Your task to perform on an android device: Find coffee shops on Maps Image 0: 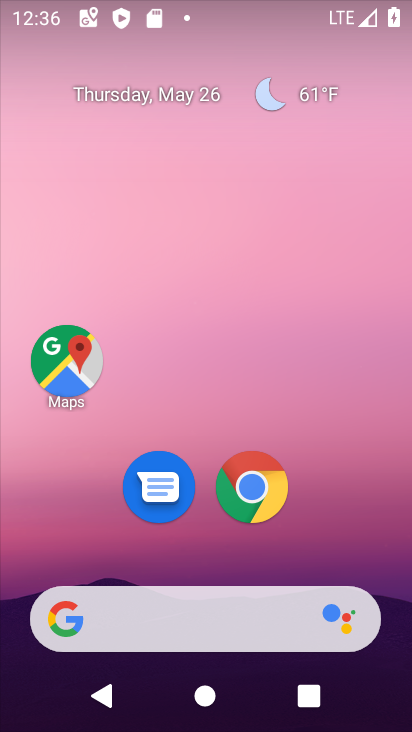
Step 0: drag from (251, 433) to (235, 314)
Your task to perform on an android device: Find coffee shops on Maps Image 1: 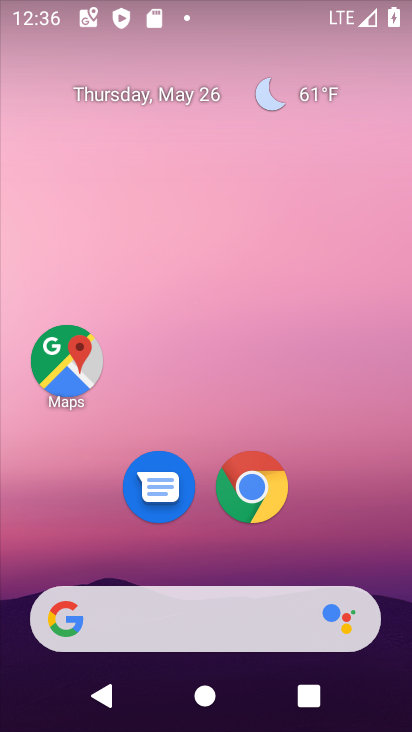
Step 1: drag from (262, 619) to (215, 136)
Your task to perform on an android device: Find coffee shops on Maps Image 2: 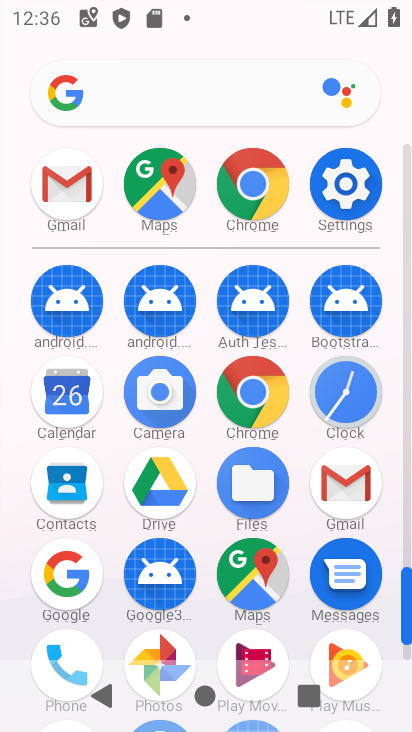
Step 2: click (235, 579)
Your task to perform on an android device: Find coffee shops on Maps Image 3: 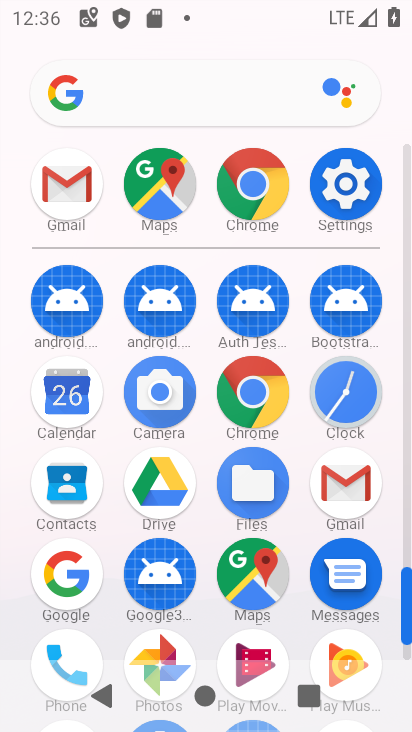
Step 3: click (235, 579)
Your task to perform on an android device: Find coffee shops on Maps Image 4: 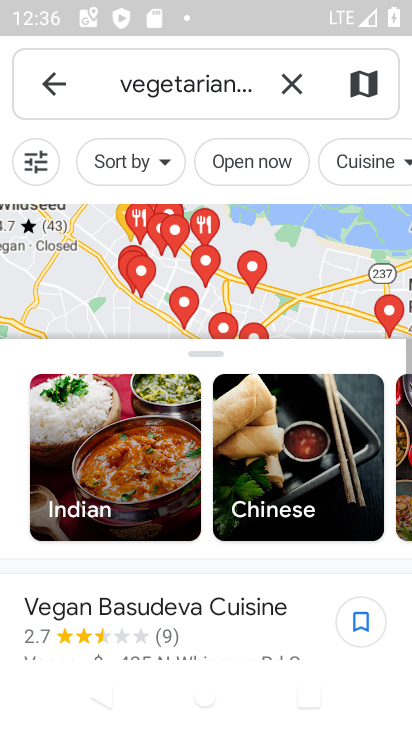
Step 4: click (291, 84)
Your task to perform on an android device: Find coffee shops on Maps Image 5: 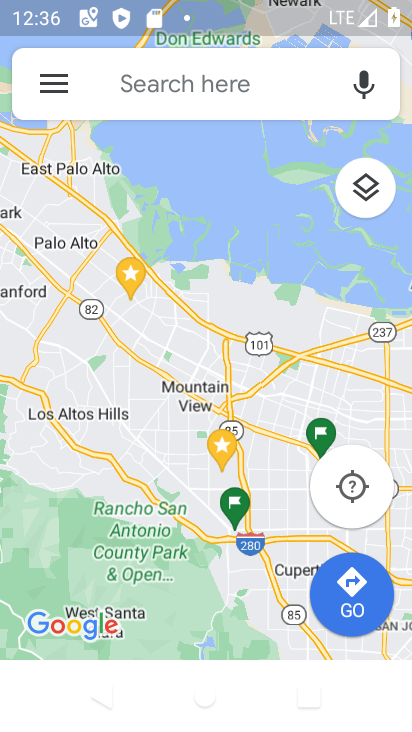
Step 5: click (123, 76)
Your task to perform on an android device: Find coffee shops on Maps Image 6: 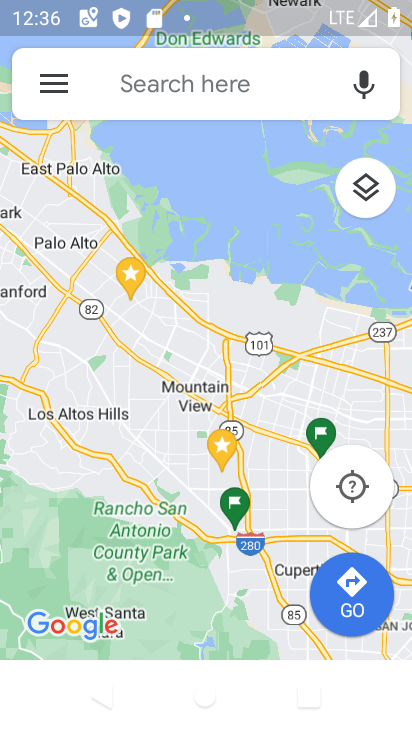
Step 6: click (123, 76)
Your task to perform on an android device: Find coffee shops on Maps Image 7: 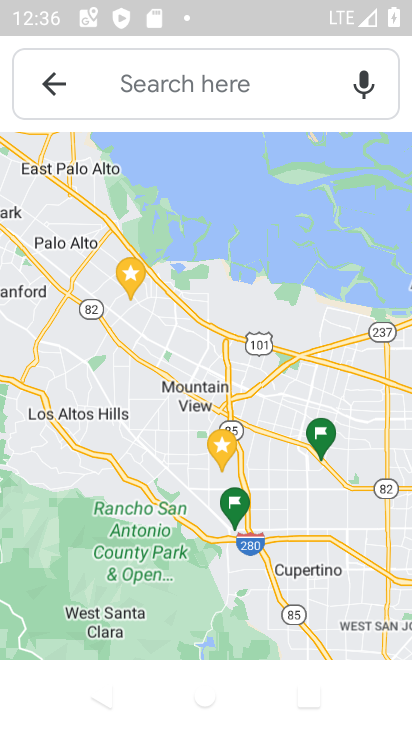
Step 7: click (123, 76)
Your task to perform on an android device: Find coffee shops on Maps Image 8: 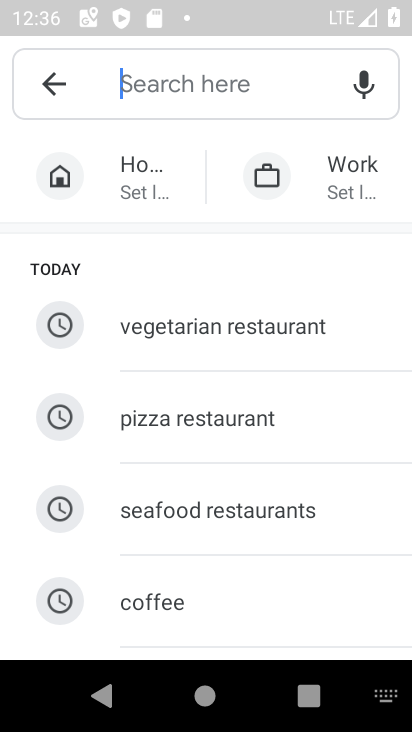
Step 8: click (159, 595)
Your task to perform on an android device: Find coffee shops on Maps Image 9: 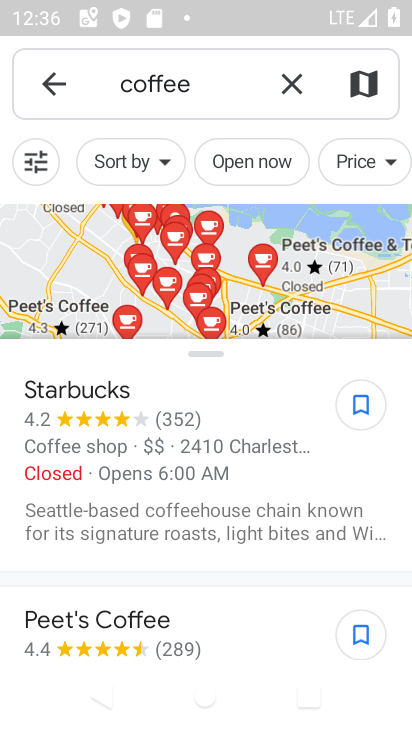
Step 9: task complete